Your task to perform on an android device: Check the news Image 0: 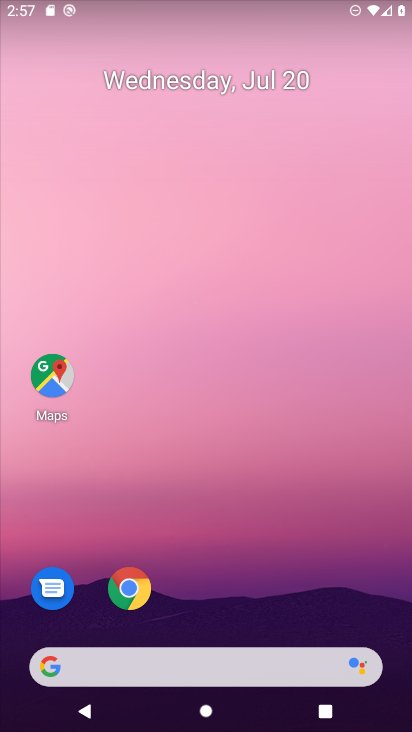
Step 0: click (196, 675)
Your task to perform on an android device: Check the news Image 1: 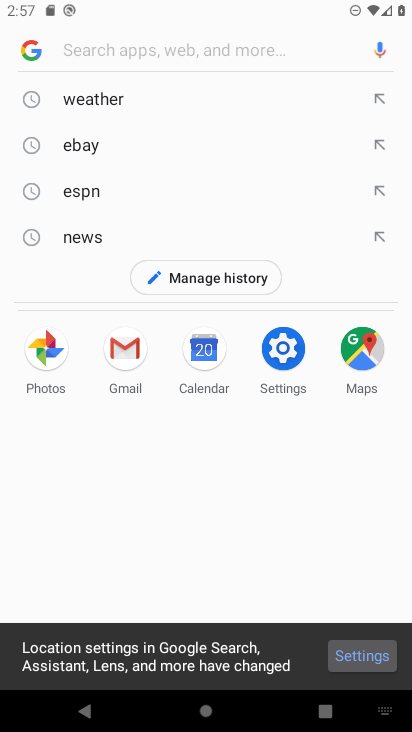
Step 1: click (75, 219)
Your task to perform on an android device: Check the news Image 2: 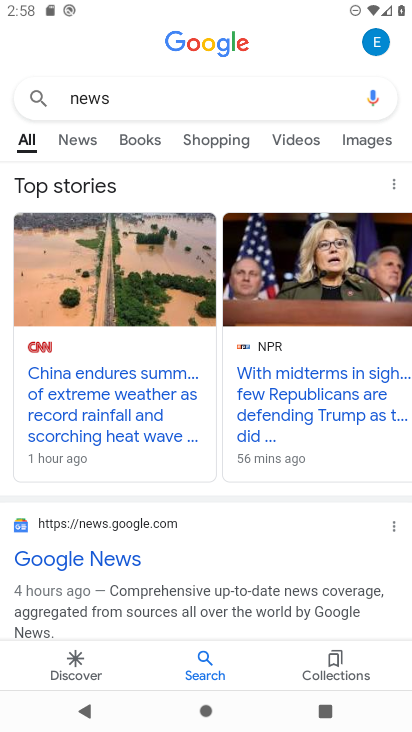
Step 2: click (70, 135)
Your task to perform on an android device: Check the news Image 3: 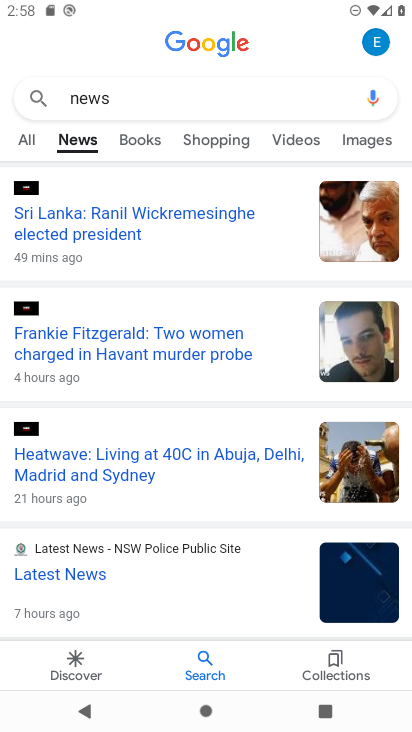
Step 3: task complete